Your task to perform on an android device: Is it going to rain this weekend? Image 0: 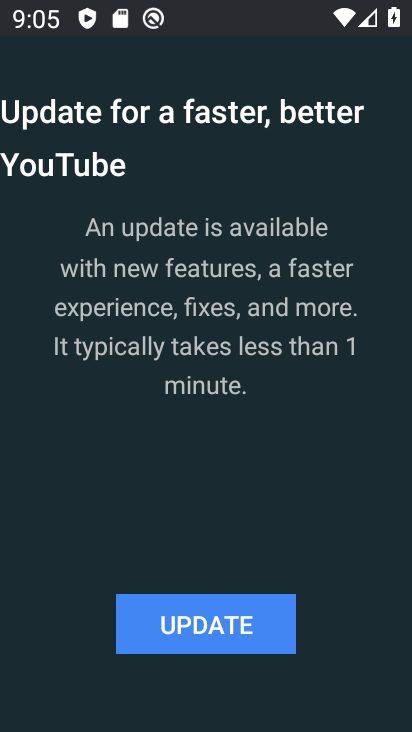
Step 0: press home button
Your task to perform on an android device: Is it going to rain this weekend? Image 1: 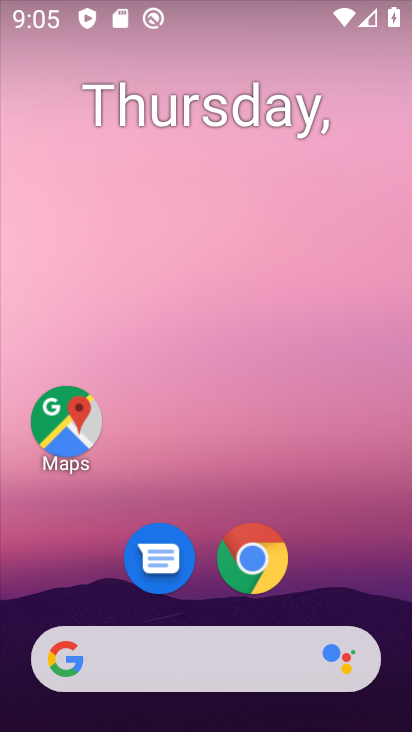
Step 1: drag from (2, 142) to (400, 162)
Your task to perform on an android device: Is it going to rain this weekend? Image 2: 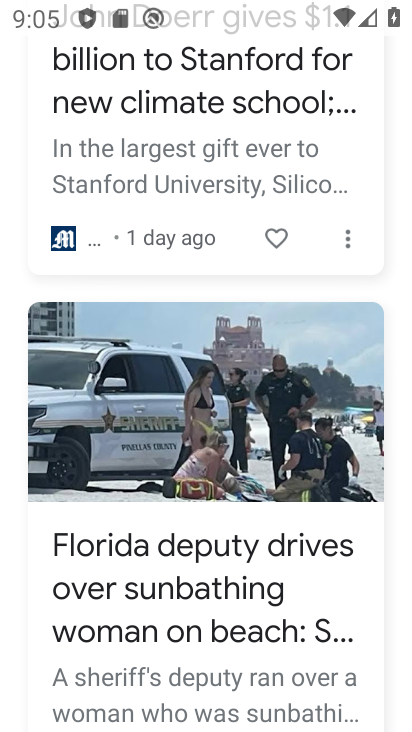
Step 2: drag from (309, 120) to (298, 481)
Your task to perform on an android device: Is it going to rain this weekend? Image 3: 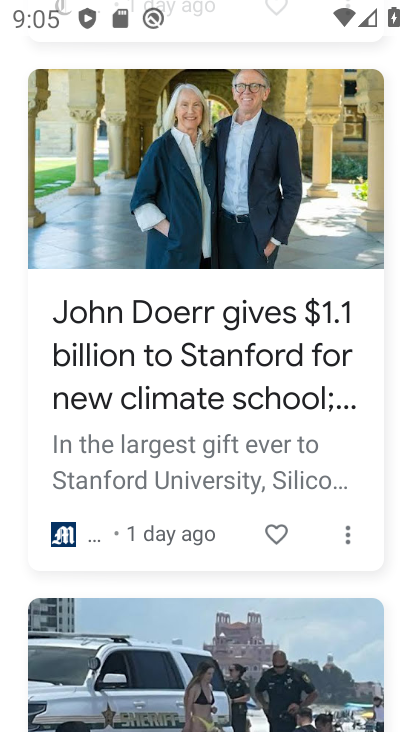
Step 3: drag from (325, 169) to (342, 547)
Your task to perform on an android device: Is it going to rain this weekend? Image 4: 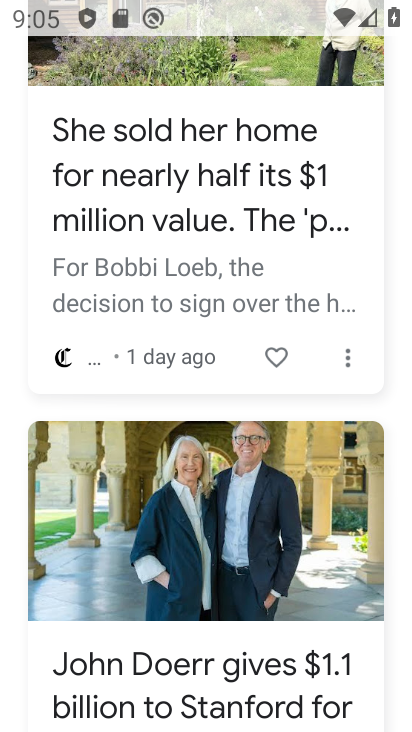
Step 4: drag from (297, 91) to (246, 406)
Your task to perform on an android device: Is it going to rain this weekend? Image 5: 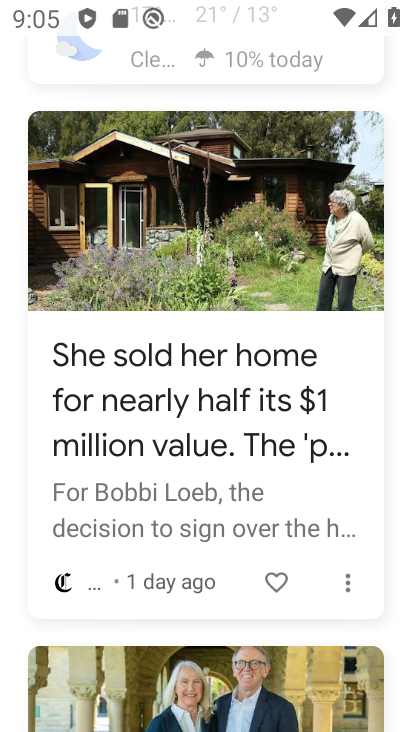
Step 5: drag from (271, 214) to (268, 541)
Your task to perform on an android device: Is it going to rain this weekend? Image 6: 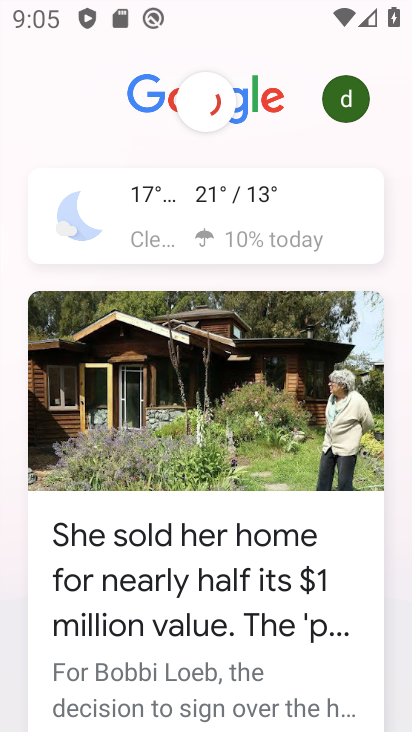
Step 6: click (197, 209)
Your task to perform on an android device: Is it going to rain this weekend? Image 7: 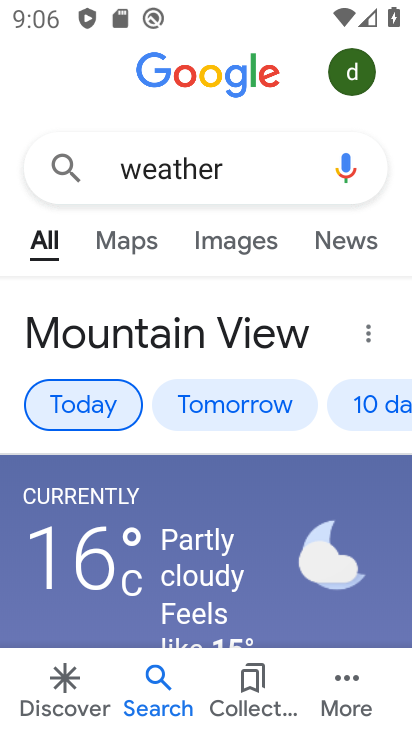
Step 7: drag from (226, 567) to (235, 431)
Your task to perform on an android device: Is it going to rain this weekend? Image 8: 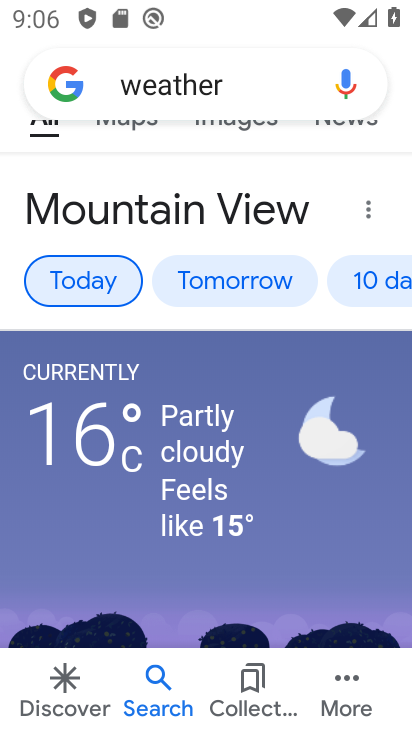
Step 8: click (385, 286)
Your task to perform on an android device: Is it going to rain this weekend? Image 9: 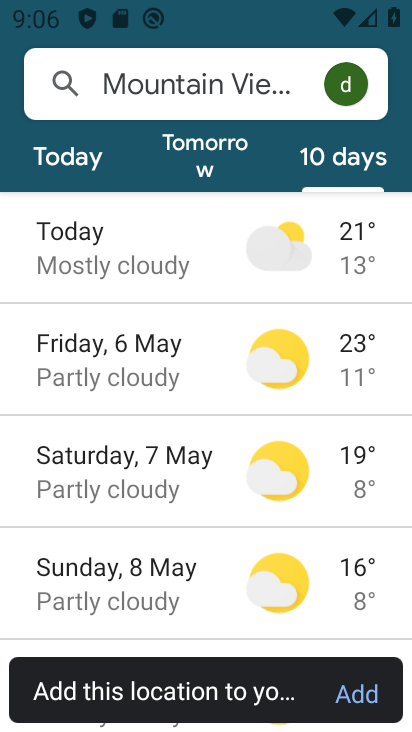
Step 9: task complete